Your task to perform on an android device: toggle priority inbox in the gmail app Image 0: 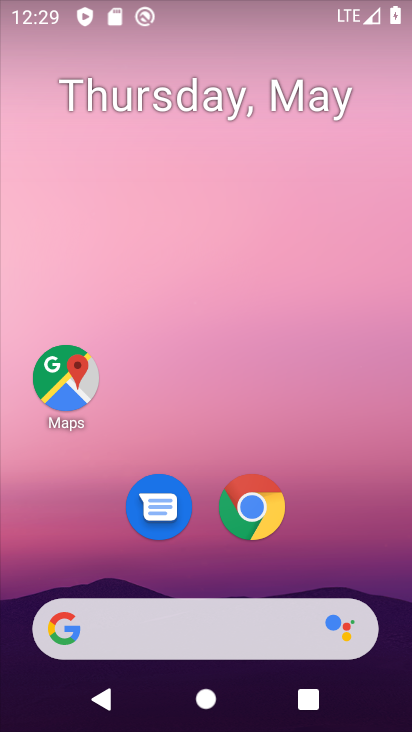
Step 0: drag from (203, 584) to (204, 186)
Your task to perform on an android device: toggle priority inbox in the gmail app Image 1: 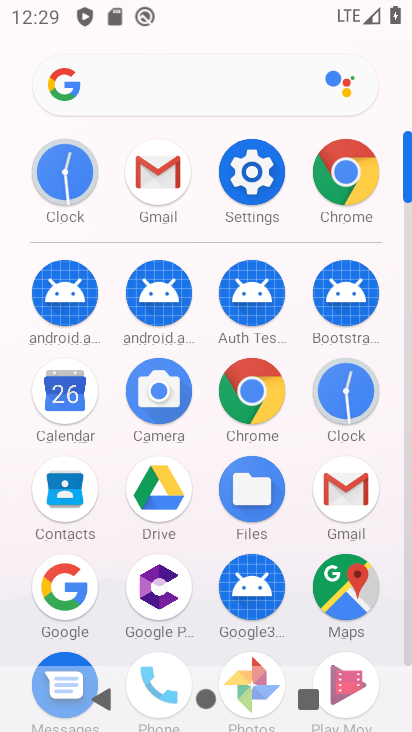
Step 1: click (152, 206)
Your task to perform on an android device: toggle priority inbox in the gmail app Image 2: 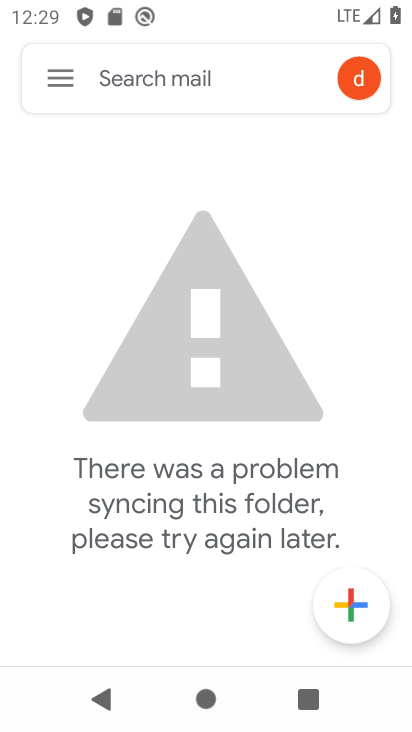
Step 2: click (60, 81)
Your task to perform on an android device: toggle priority inbox in the gmail app Image 3: 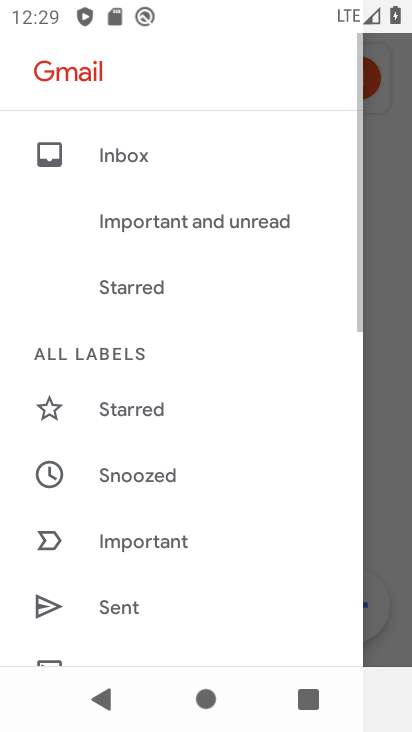
Step 3: drag from (219, 609) to (246, 237)
Your task to perform on an android device: toggle priority inbox in the gmail app Image 4: 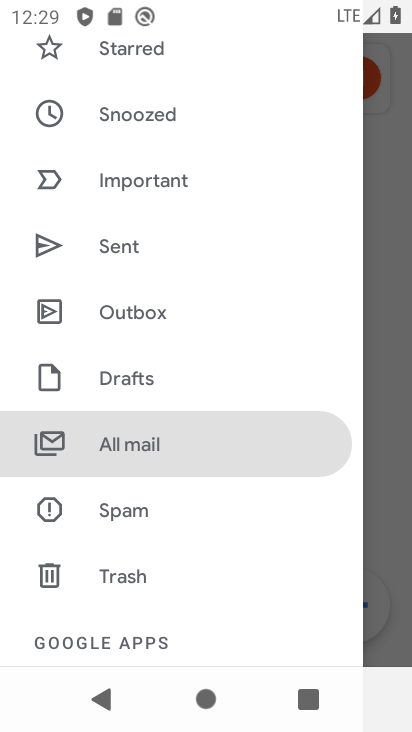
Step 4: drag from (216, 576) to (231, 270)
Your task to perform on an android device: toggle priority inbox in the gmail app Image 5: 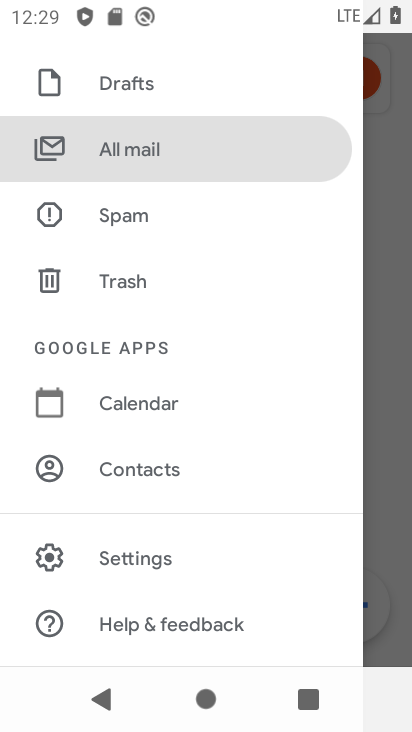
Step 5: click (200, 568)
Your task to perform on an android device: toggle priority inbox in the gmail app Image 6: 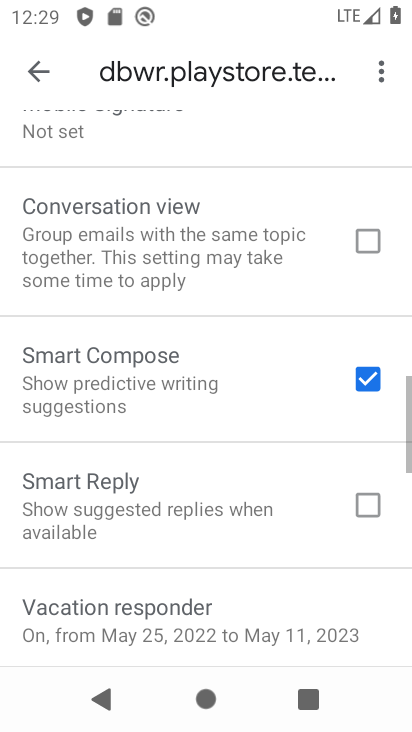
Step 6: drag from (215, 582) to (242, 173)
Your task to perform on an android device: toggle priority inbox in the gmail app Image 7: 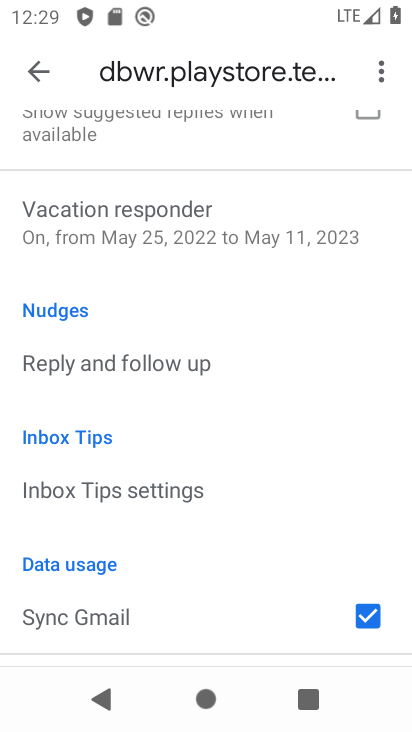
Step 7: click (242, 542)
Your task to perform on an android device: toggle priority inbox in the gmail app Image 8: 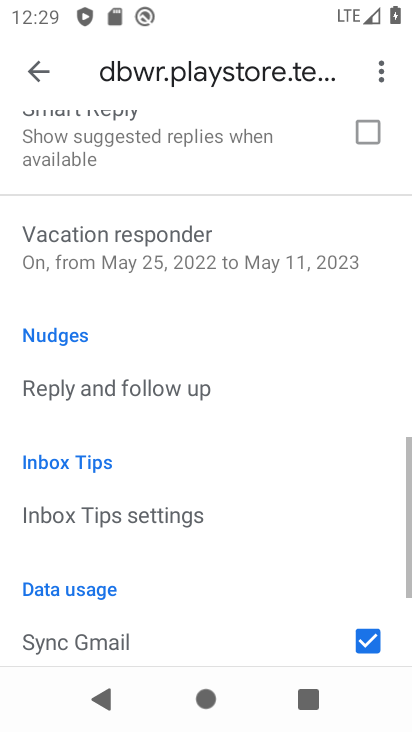
Step 8: drag from (200, 224) to (215, 537)
Your task to perform on an android device: toggle priority inbox in the gmail app Image 9: 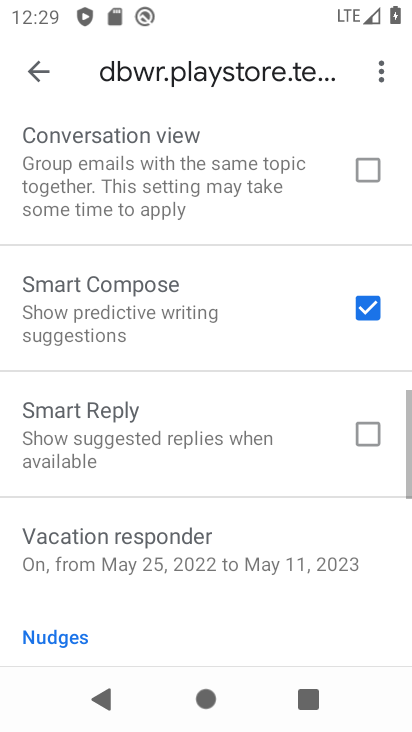
Step 9: drag from (199, 262) to (233, 516)
Your task to perform on an android device: toggle priority inbox in the gmail app Image 10: 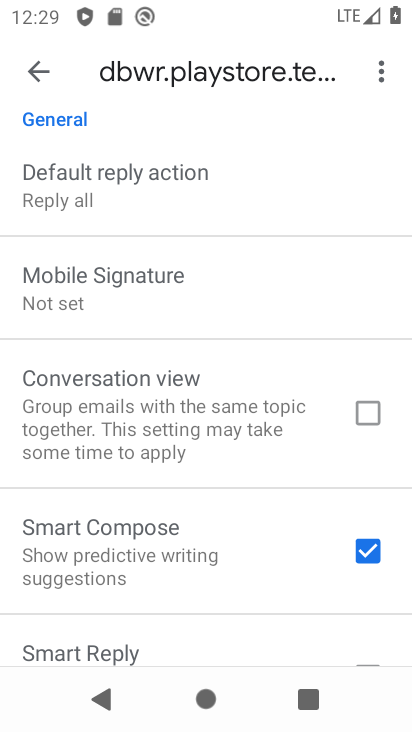
Step 10: drag from (234, 257) to (255, 540)
Your task to perform on an android device: toggle priority inbox in the gmail app Image 11: 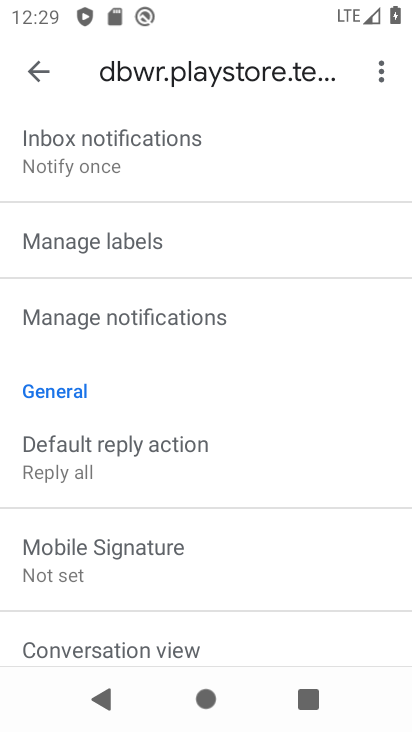
Step 11: drag from (199, 184) to (214, 505)
Your task to perform on an android device: toggle priority inbox in the gmail app Image 12: 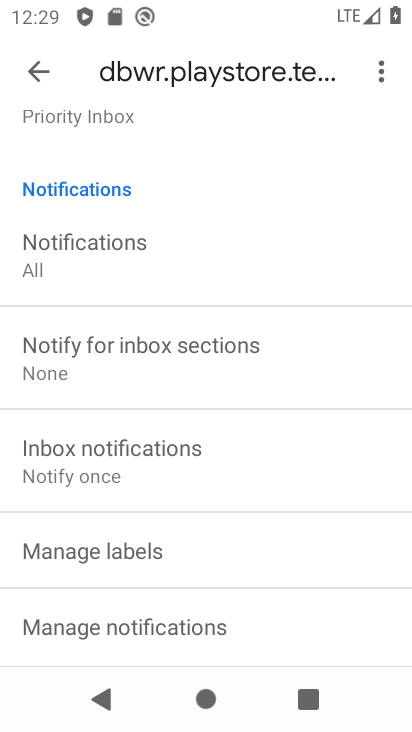
Step 12: drag from (198, 171) to (198, 404)
Your task to perform on an android device: toggle priority inbox in the gmail app Image 13: 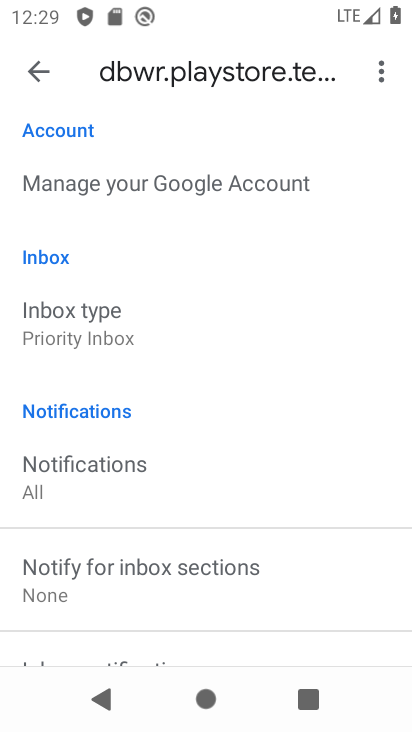
Step 13: click (151, 330)
Your task to perform on an android device: toggle priority inbox in the gmail app Image 14: 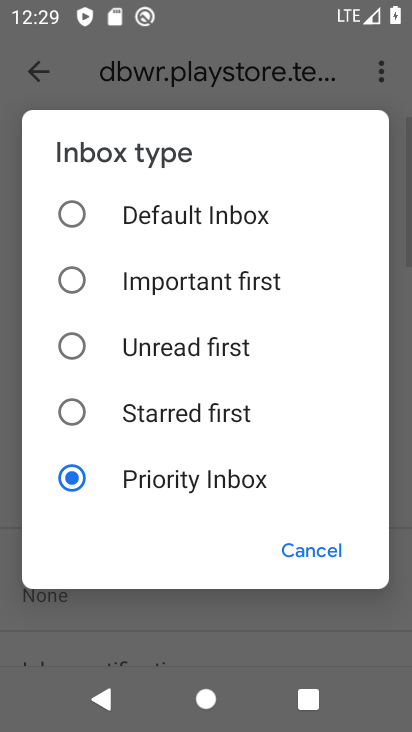
Step 14: click (179, 221)
Your task to perform on an android device: toggle priority inbox in the gmail app Image 15: 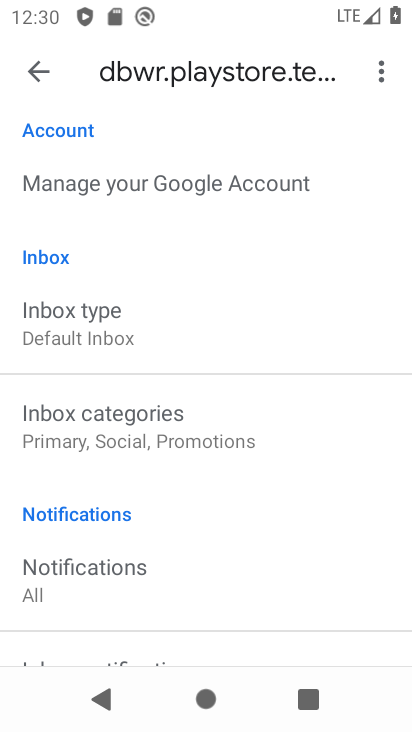
Step 15: task complete